Your task to perform on an android device: Go to internet settings Image 0: 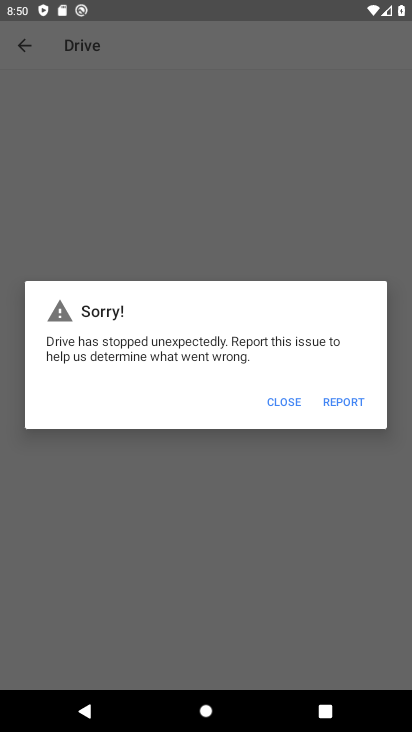
Step 0: press home button
Your task to perform on an android device: Go to internet settings Image 1: 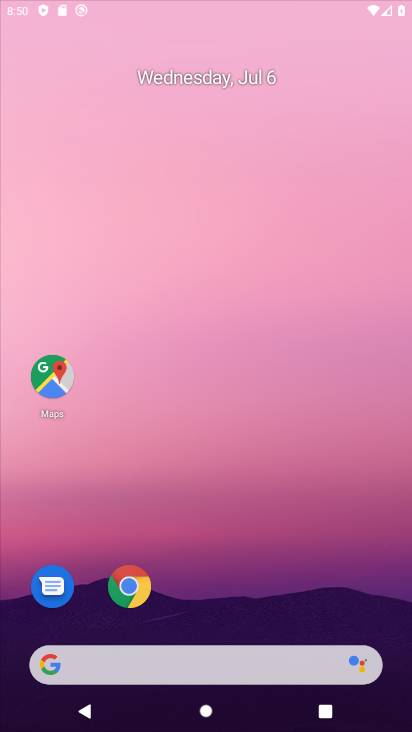
Step 1: drag from (211, 607) to (211, 170)
Your task to perform on an android device: Go to internet settings Image 2: 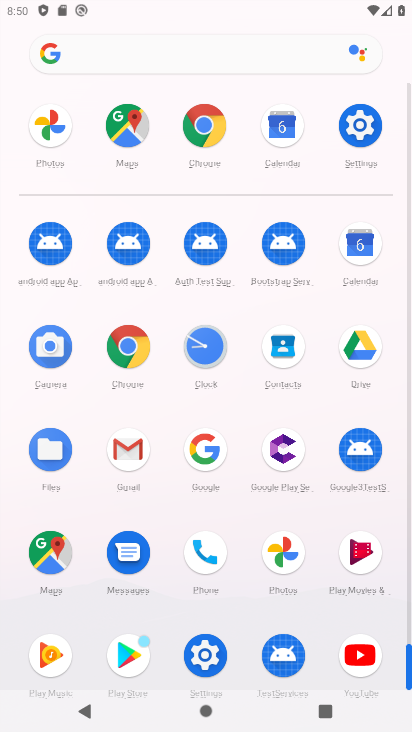
Step 2: click (215, 657)
Your task to perform on an android device: Go to internet settings Image 3: 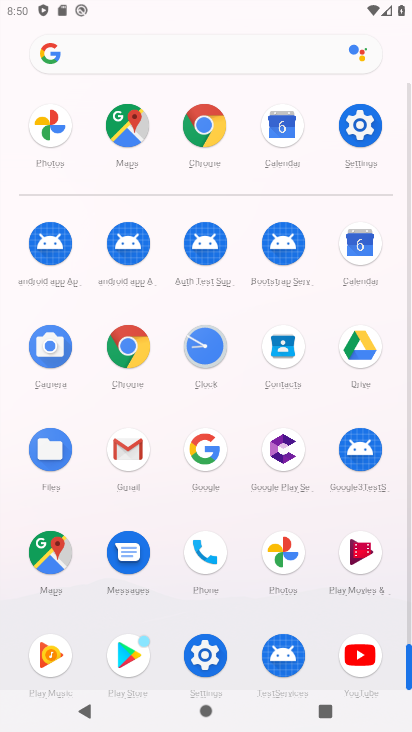
Step 3: click (215, 656)
Your task to perform on an android device: Go to internet settings Image 4: 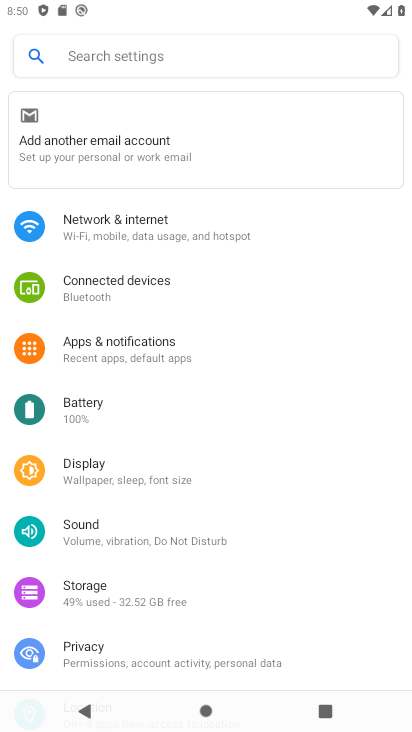
Step 4: click (156, 240)
Your task to perform on an android device: Go to internet settings Image 5: 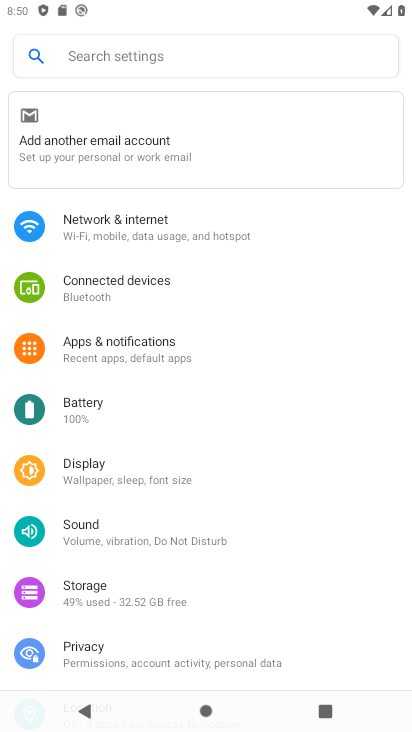
Step 5: click (156, 240)
Your task to perform on an android device: Go to internet settings Image 6: 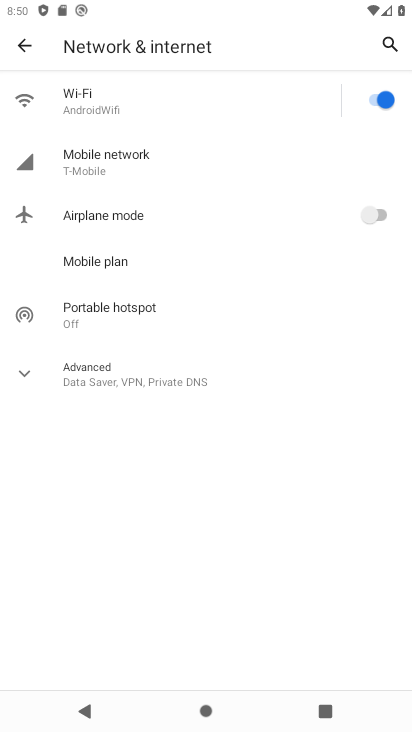
Step 6: task complete